Your task to perform on an android device: change notification settings in the gmail app Image 0: 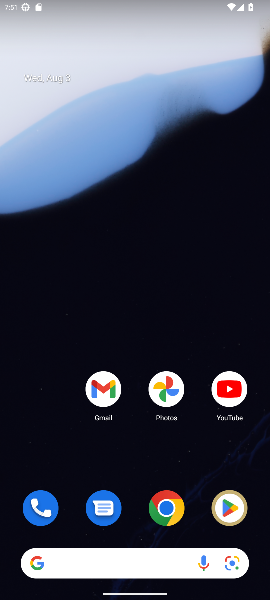
Step 0: drag from (122, 519) to (144, 2)
Your task to perform on an android device: change notification settings in the gmail app Image 1: 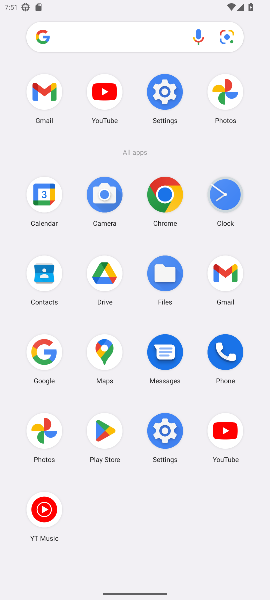
Step 1: click (217, 280)
Your task to perform on an android device: change notification settings in the gmail app Image 2: 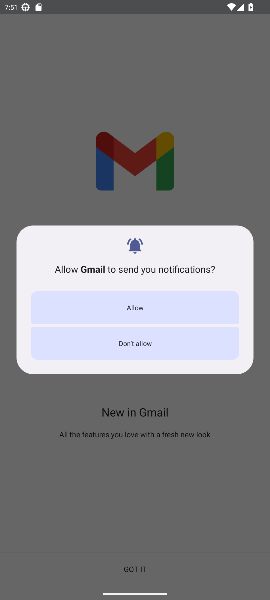
Step 2: click (147, 300)
Your task to perform on an android device: change notification settings in the gmail app Image 3: 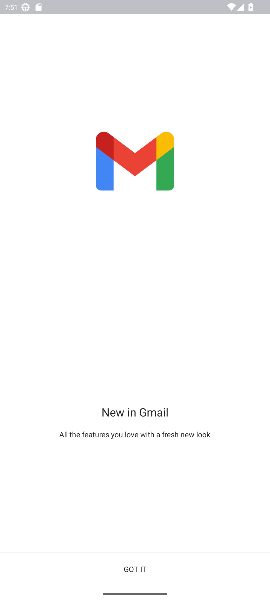
Step 3: click (119, 581)
Your task to perform on an android device: change notification settings in the gmail app Image 4: 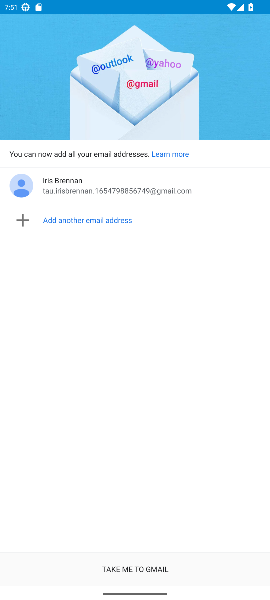
Step 4: click (152, 573)
Your task to perform on an android device: change notification settings in the gmail app Image 5: 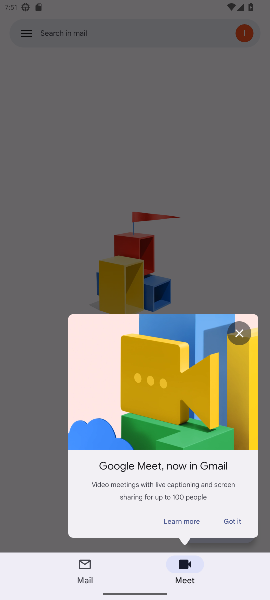
Step 5: click (242, 330)
Your task to perform on an android device: change notification settings in the gmail app Image 6: 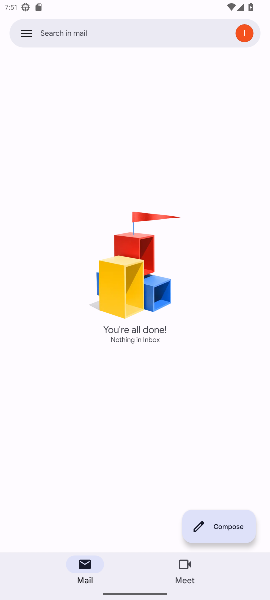
Step 6: click (33, 33)
Your task to perform on an android device: change notification settings in the gmail app Image 7: 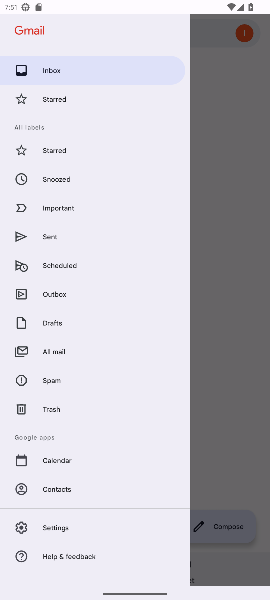
Step 7: click (64, 522)
Your task to perform on an android device: change notification settings in the gmail app Image 8: 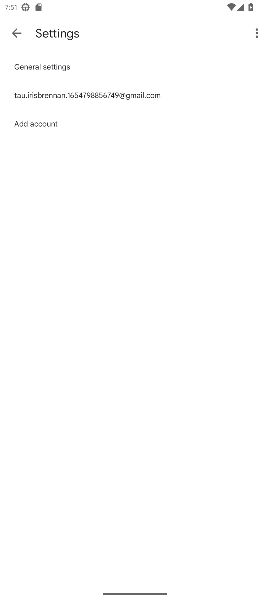
Step 8: click (44, 70)
Your task to perform on an android device: change notification settings in the gmail app Image 9: 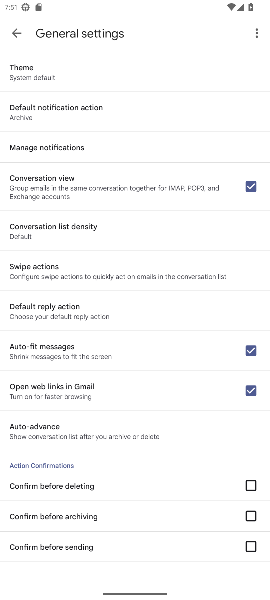
Step 9: click (31, 101)
Your task to perform on an android device: change notification settings in the gmail app Image 10: 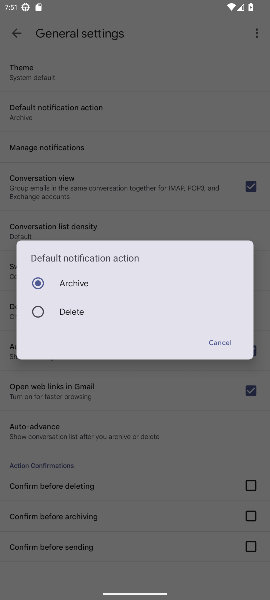
Step 10: task complete